Your task to perform on an android device: Go to Google Image 0: 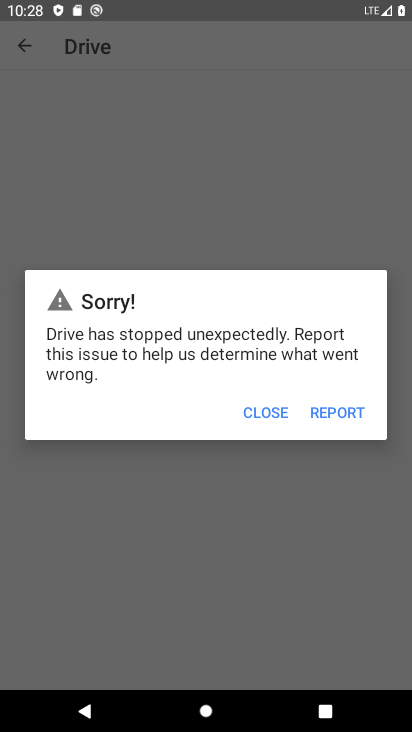
Step 0: press home button
Your task to perform on an android device: Go to Google Image 1: 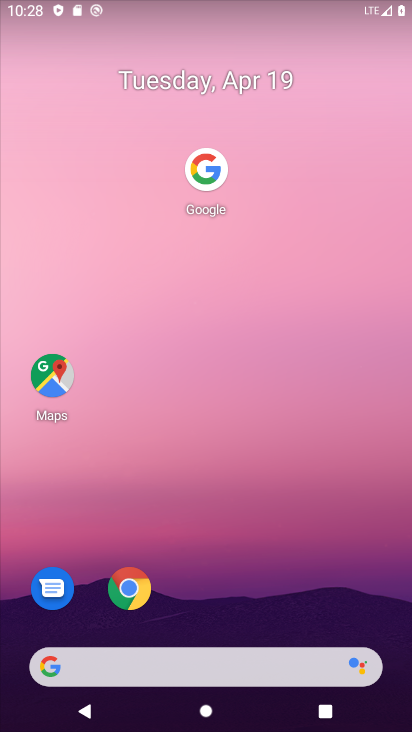
Step 1: click (222, 671)
Your task to perform on an android device: Go to Google Image 2: 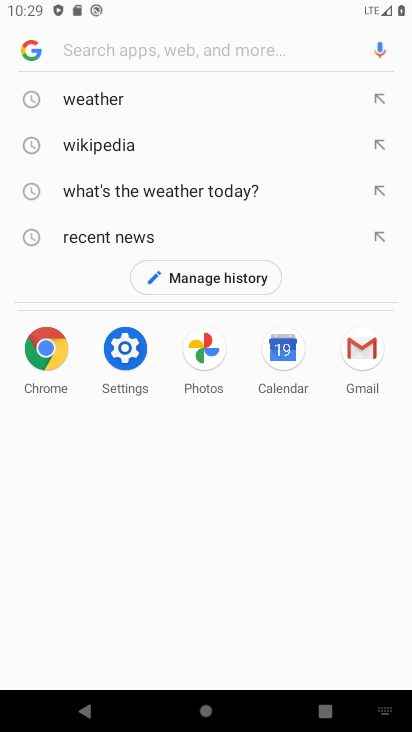
Step 2: task complete